Your task to perform on an android device: Open Yahoo.com Image 0: 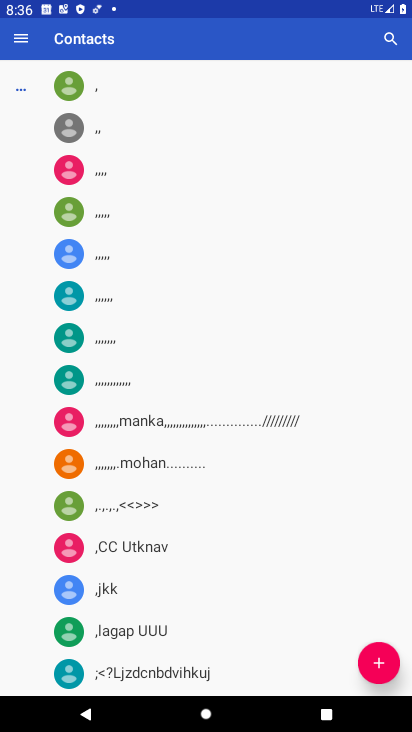
Step 0: press home button
Your task to perform on an android device: Open Yahoo.com Image 1: 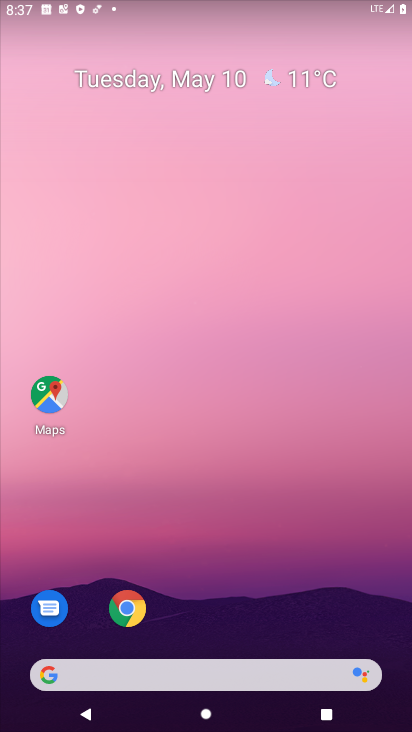
Step 1: click (130, 614)
Your task to perform on an android device: Open Yahoo.com Image 2: 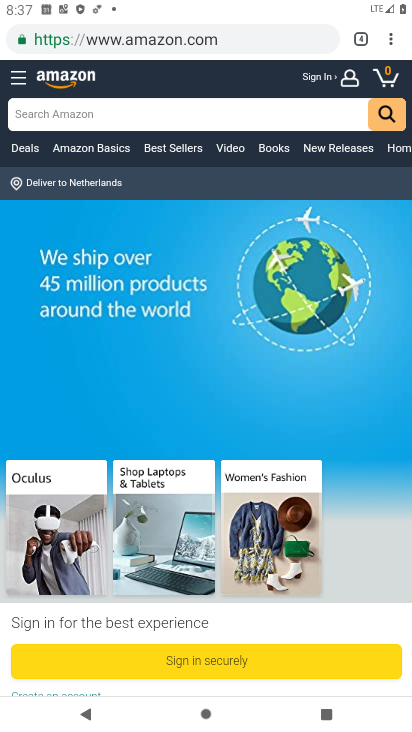
Step 2: drag from (393, 42) to (336, 81)
Your task to perform on an android device: Open Yahoo.com Image 3: 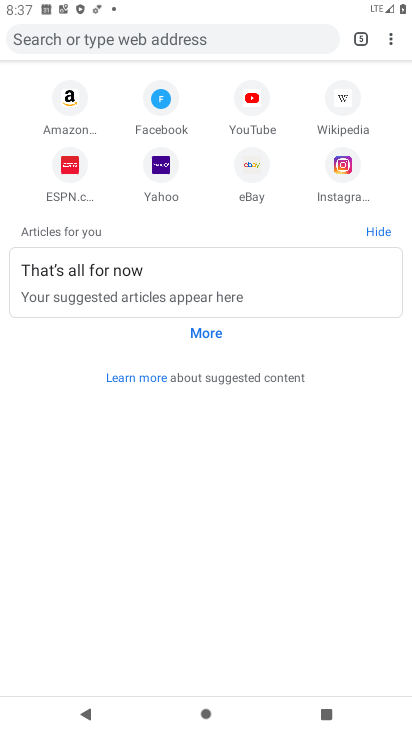
Step 3: click (150, 162)
Your task to perform on an android device: Open Yahoo.com Image 4: 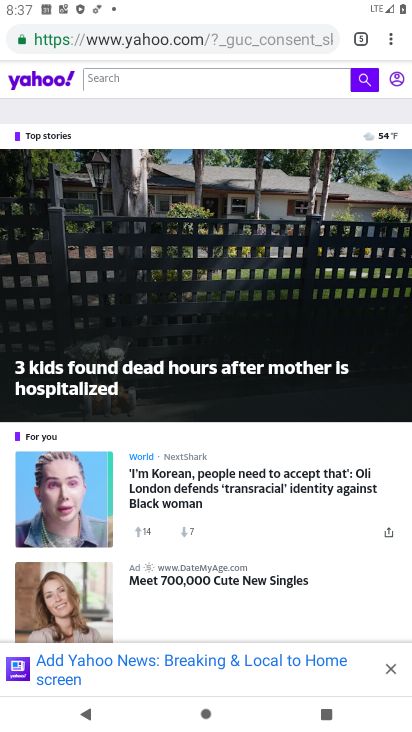
Step 4: task complete